Your task to perform on an android device: Open calendar and show me the fourth week of next month Image 0: 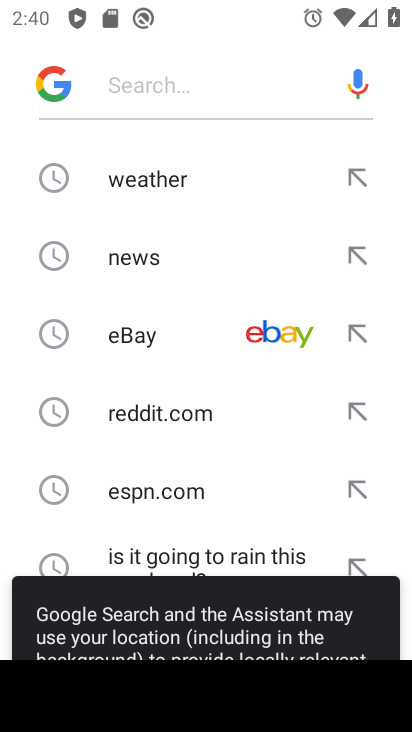
Step 0: press home button
Your task to perform on an android device: Open calendar and show me the fourth week of next month Image 1: 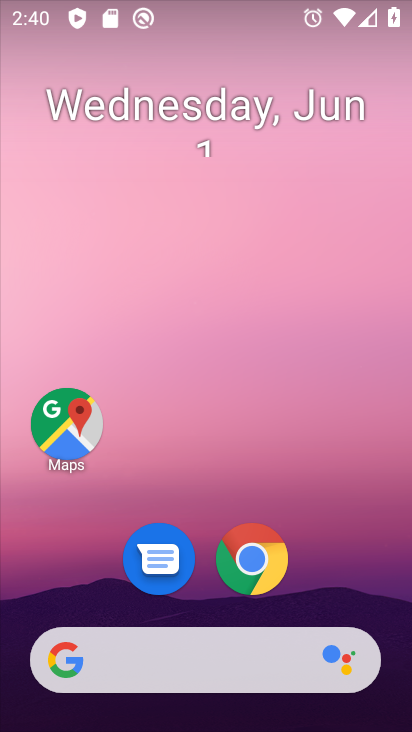
Step 1: drag from (215, 606) to (186, 46)
Your task to perform on an android device: Open calendar and show me the fourth week of next month Image 2: 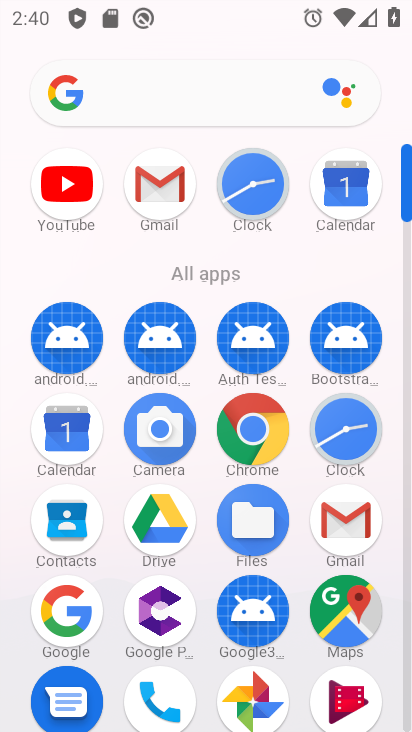
Step 2: click (66, 415)
Your task to perform on an android device: Open calendar and show me the fourth week of next month Image 3: 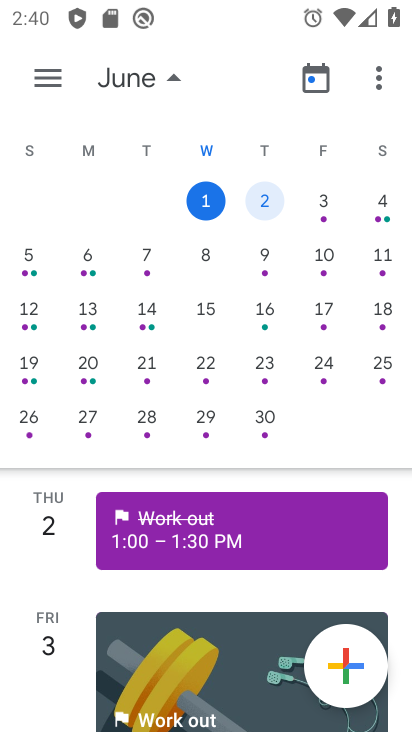
Step 3: drag from (366, 371) to (6, 381)
Your task to perform on an android device: Open calendar and show me the fourth week of next month Image 4: 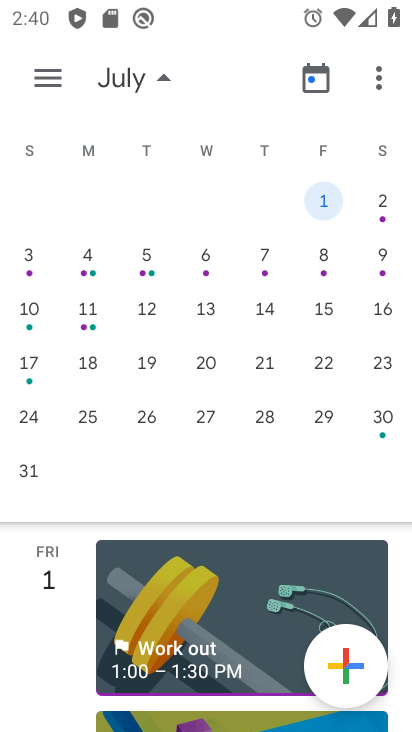
Step 4: click (37, 359)
Your task to perform on an android device: Open calendar and show me the fourth week of next month Image 5: 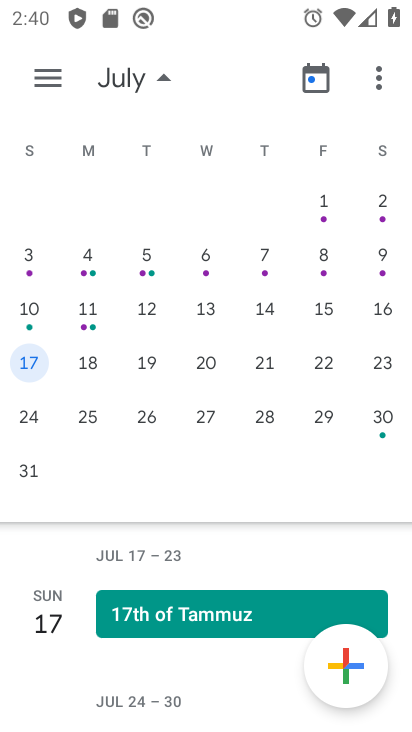
Step 5: task complete